Your task to perform on an android device: Go to Amazon Image 0: 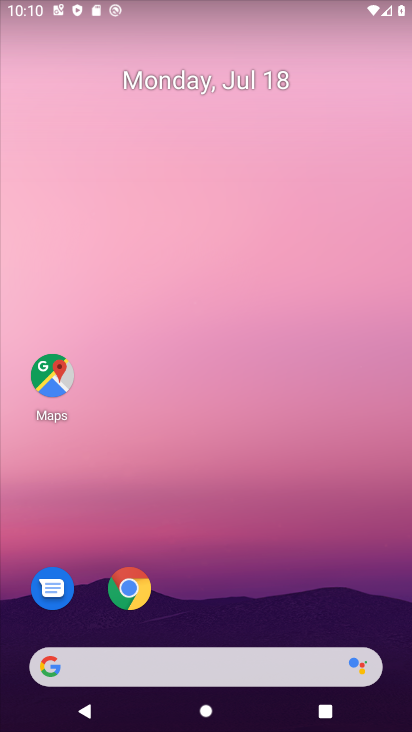
Step 0: drag from (226, 707) to (218, 167)
Your task to perform on an android device: Go to Amazon Image 1: 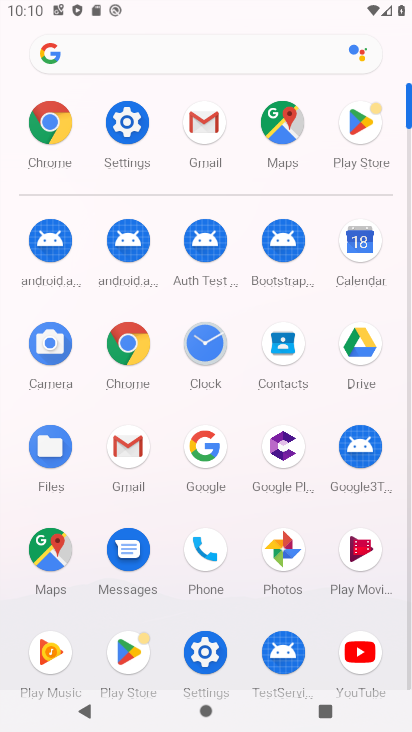
Step 1: click (48, 125)
Your task to perform on an android device: Go to Amazon Image 2: 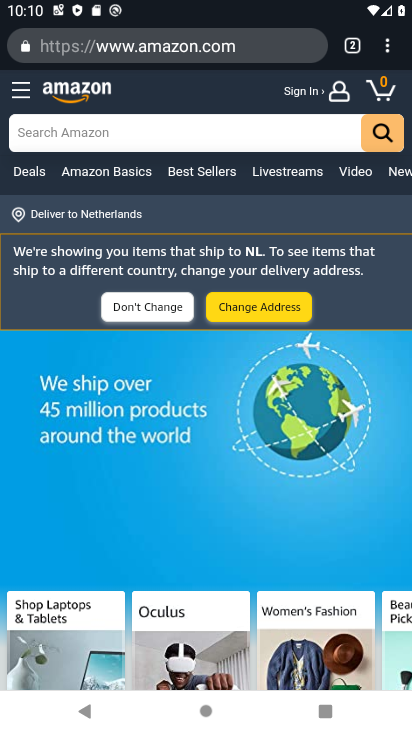
Step 2: task complete